Your task to perform on an android device: toggle data saver in the chrome app Image 0: 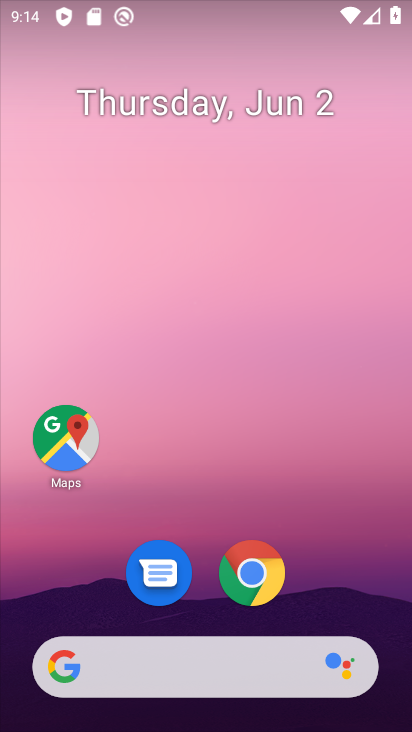
Step 0: click (253, 567)
Your task to perform on an android device: toggle data saver in the chrome app Image 1: 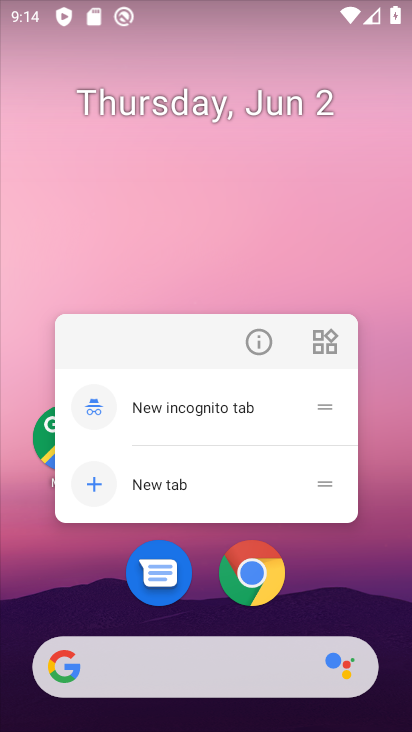
Step 1: click (250, 578)
Your task to perform on an android device: toggle data saver in the chrome app Image 2: 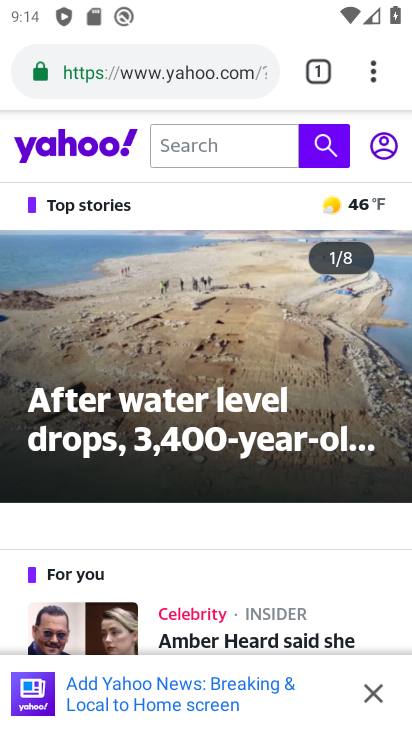
Step 2: drag from (373, 64) to (165, 566)
Your task to perform on an android device: toggle data saver in the chrome app Image 3: 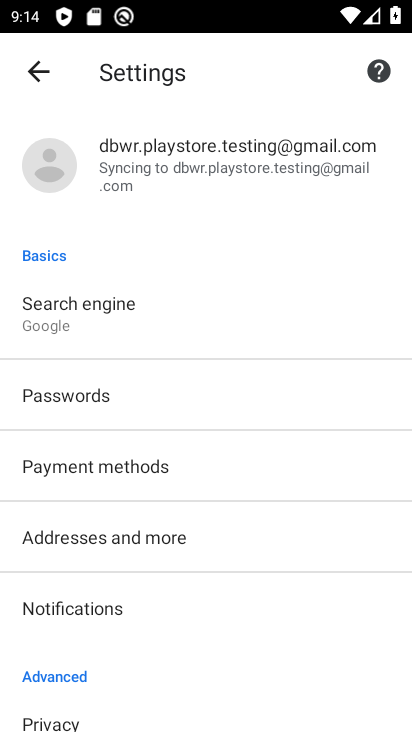
Step 3: drag from (235, 579) to (254, 158)
Your task to perform on an android device: toggle data saver in the chrome app Image 4: 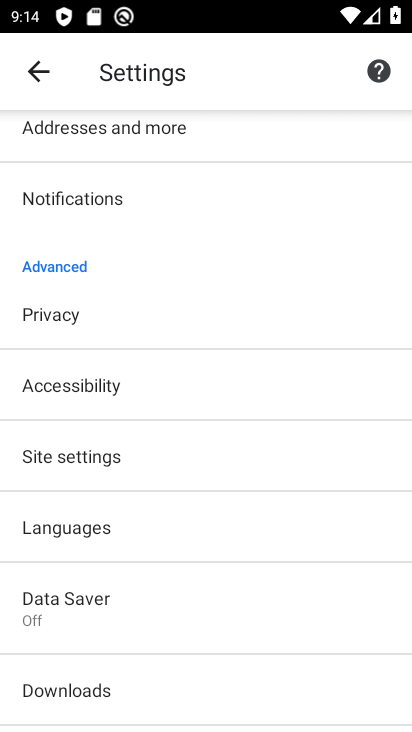
Step 4: click (93, 613)
Your task to perform on an android device: toggle data saver in the chrome app Image 5: 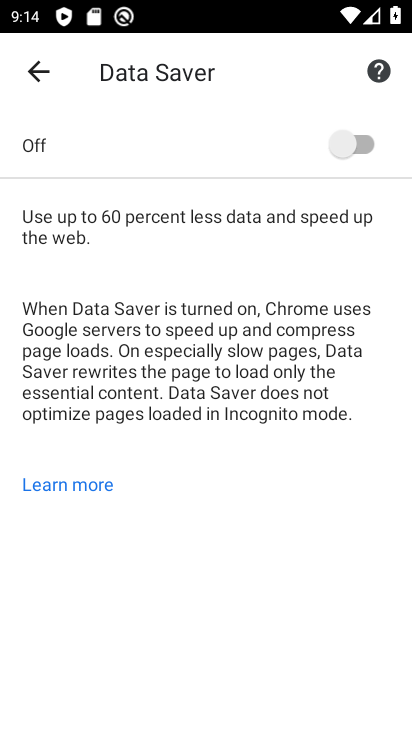
Step 5: click (338, 148)
Your task to perform on an android device: toggle data saver in the chrome app Image 6: 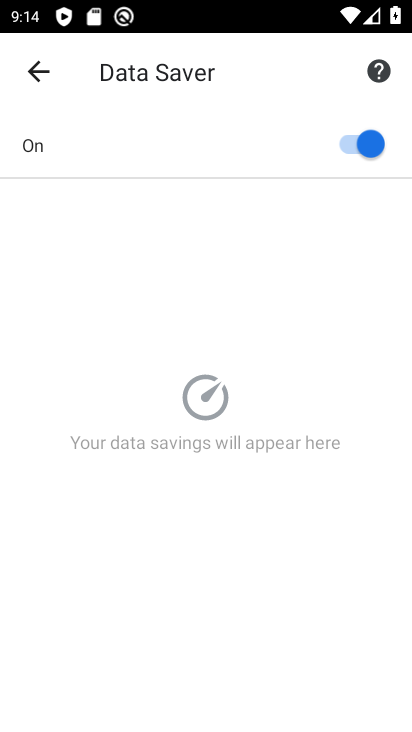
Step 6: task complete